Your task to perform on an android device: toggle pop-ups in chrome Image 0: 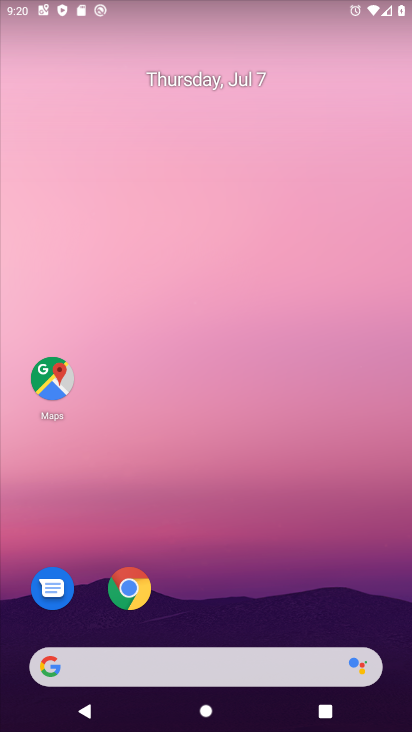
Step 0: click (122, 586)
Your task to perform on an android device: toggle pop-ups in chrome Image 1: 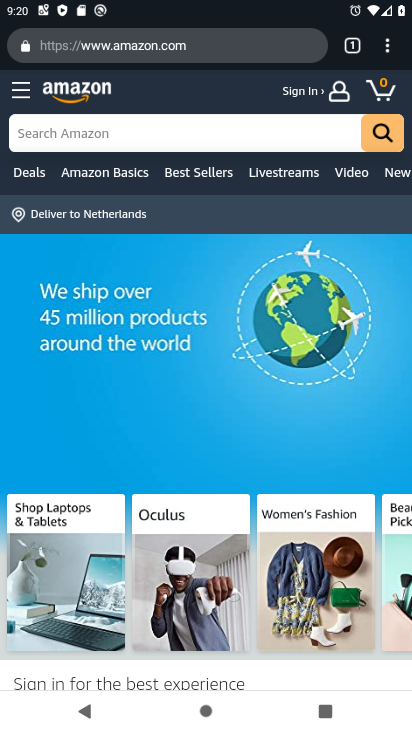
Step 1: click (390, 49)
Your task to perform on an android device: toggle pop-ups in chrome Image 2: 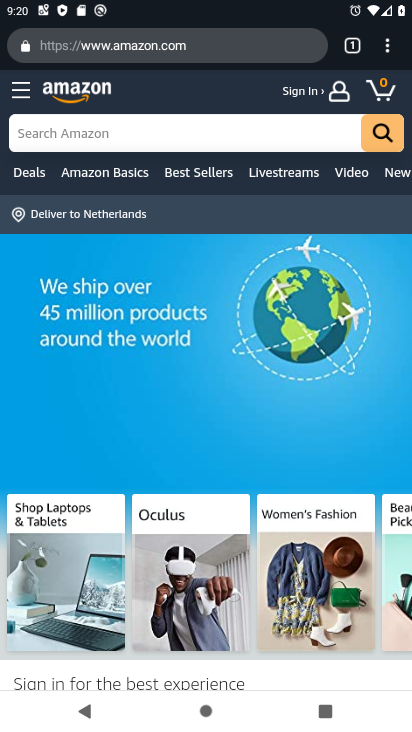
Step 2: click (382, 52)
Your task to perform on an android device: toggle pop-ups in chrome Image 3: 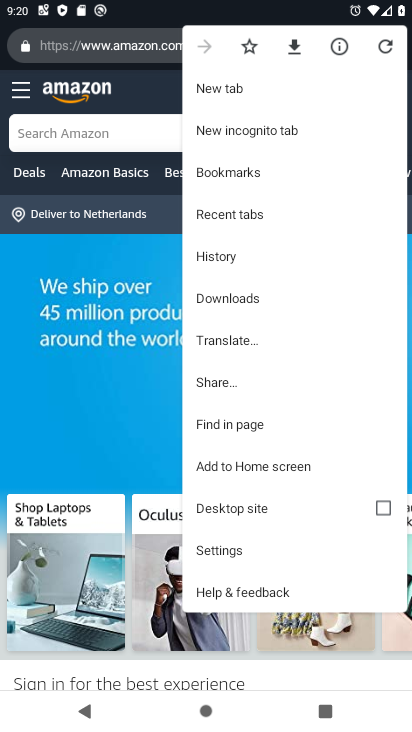
Step 3: click (239, 551)
Your task to perform on an android device: toggle pop-ups in chrome Image 4: 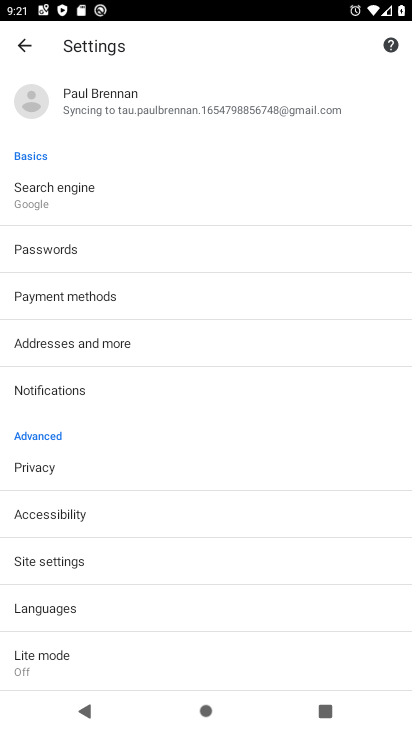
Step 4: click (94, 555)
Your task to perform on an android device: toggle pop-ups in chrome Image 5: 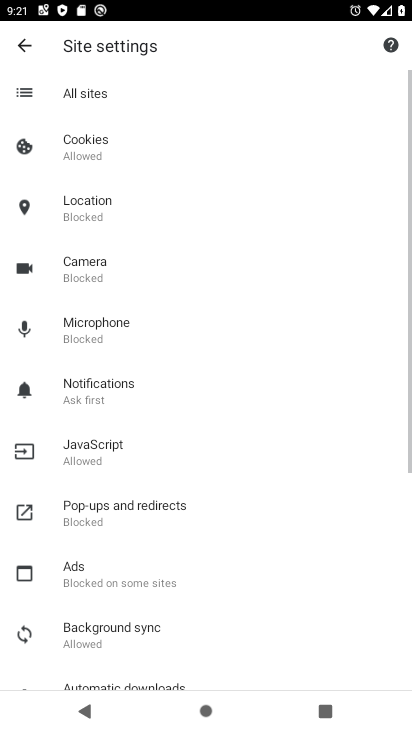
Step 5: click (127, 515)
Your task to perform on an android device: toggle pop-ups in chrome Image 6: 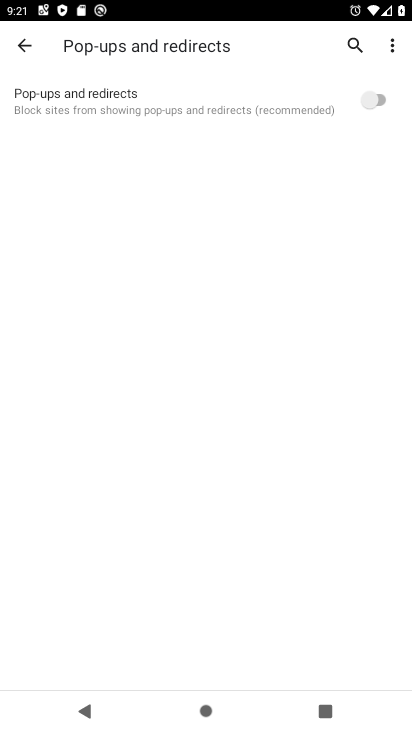
Step 6: click (375, 92)
Your task to perform on an android device: toggle pop-ups in chrome Image 7: 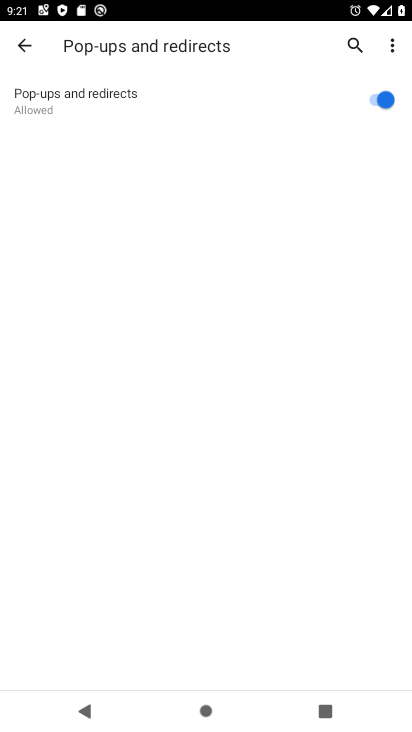
Step 7: task complete